Your task to perform on an android device: allow cookies in the chrome app Image 0: 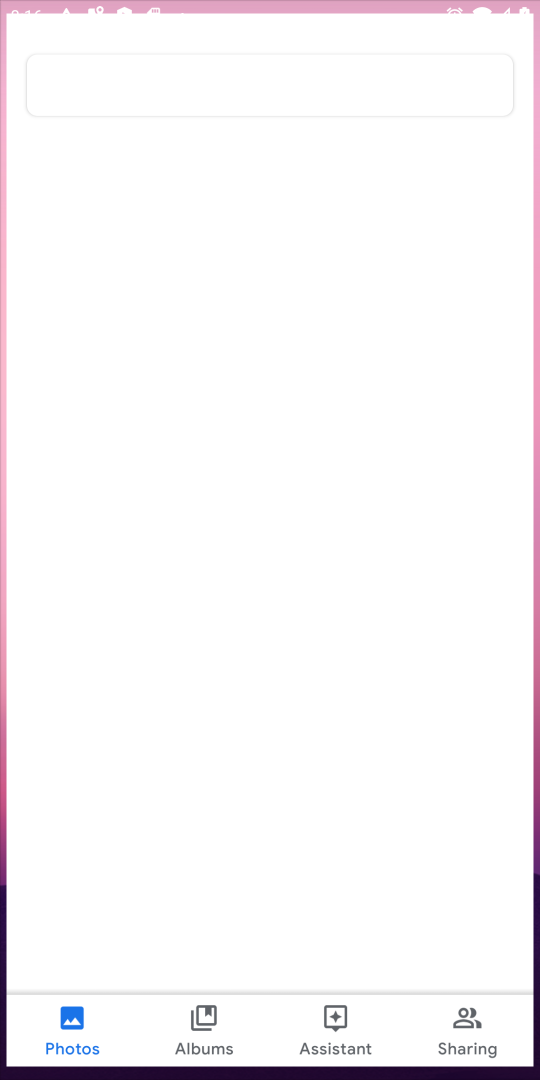
Step 0: press home button
Your task to perform on an android device: allow cookies in the chrome app Image 1: 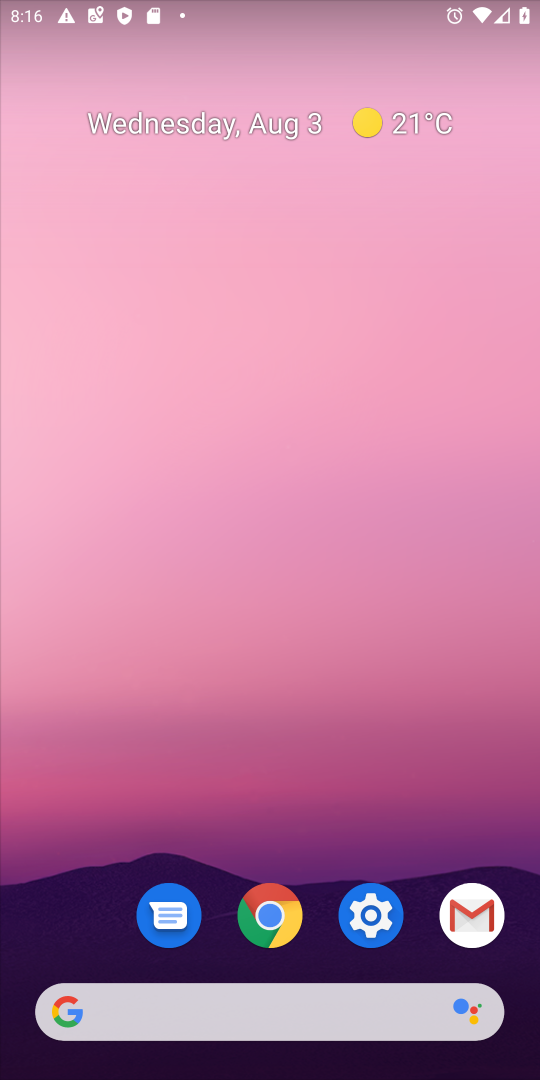
Step 1: drag from (385, 1019) to (273, 129)
Your task to perform on an android device: allow cookies in the chrome app Image 2: 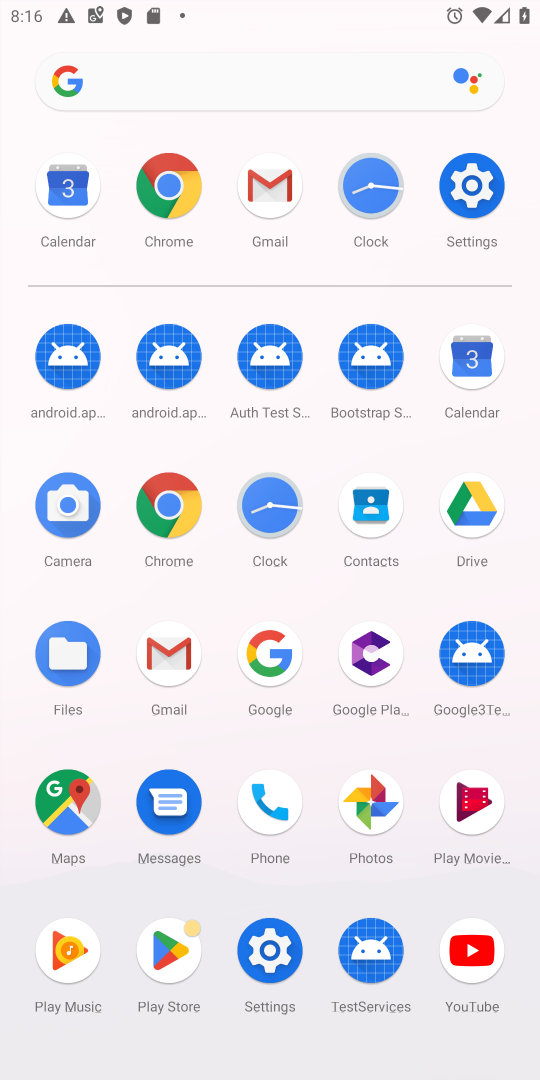
Step 2: click (170, 189)
Your task to perform on an android device: allow cookies in the chrome app Image 3: 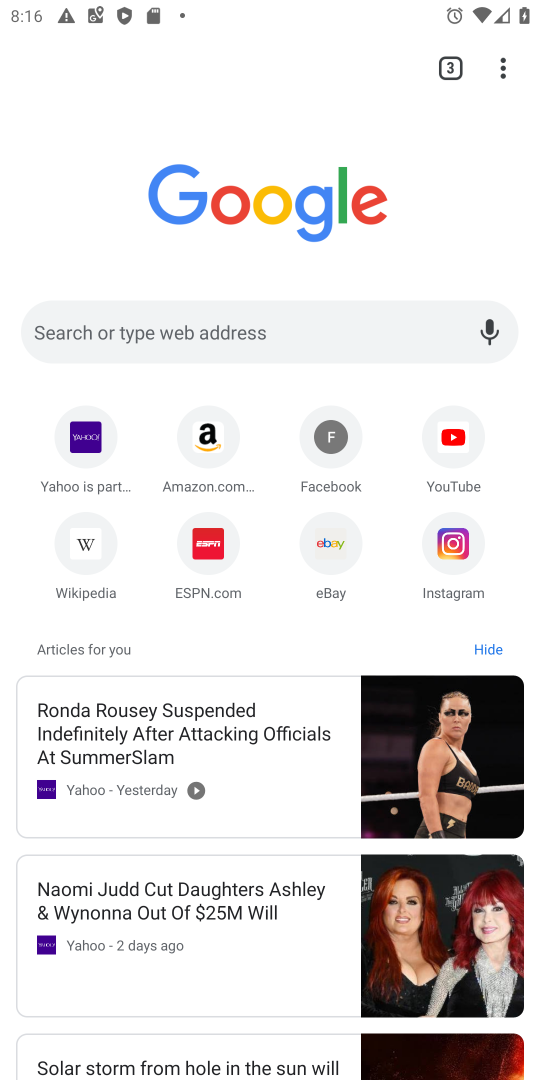
Step 3: click (507, 81)
Your task to perform on an android device: allow cookies in the chrome app Image 4: 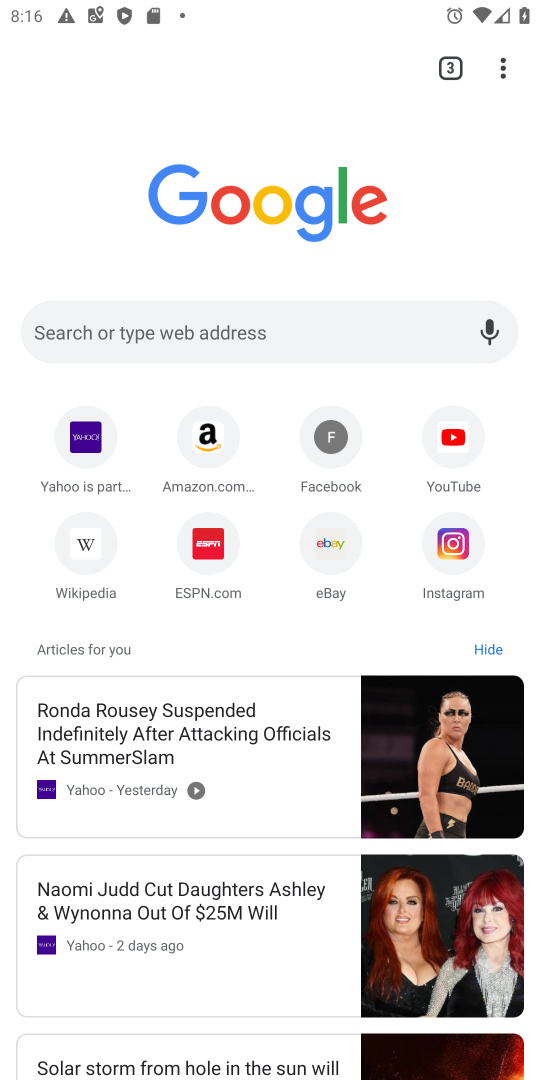
Step 4: click (506, 76)
Your task to perform on an android device: allow cookies in the chrome app Image 5: 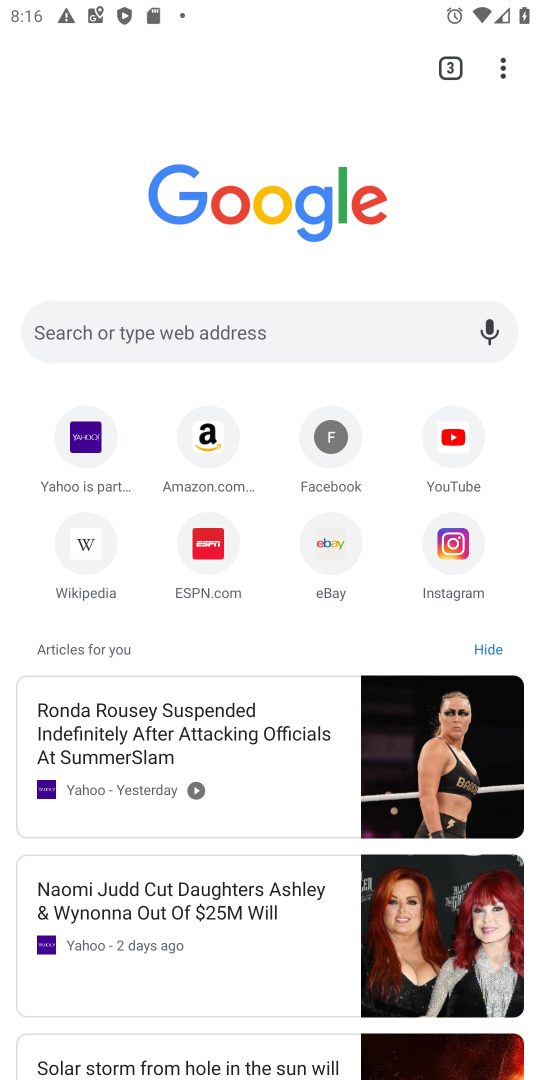
Step 5: click (509, 84)
Your task to perform on an android device: allow cookies in the chrome app Image 6: 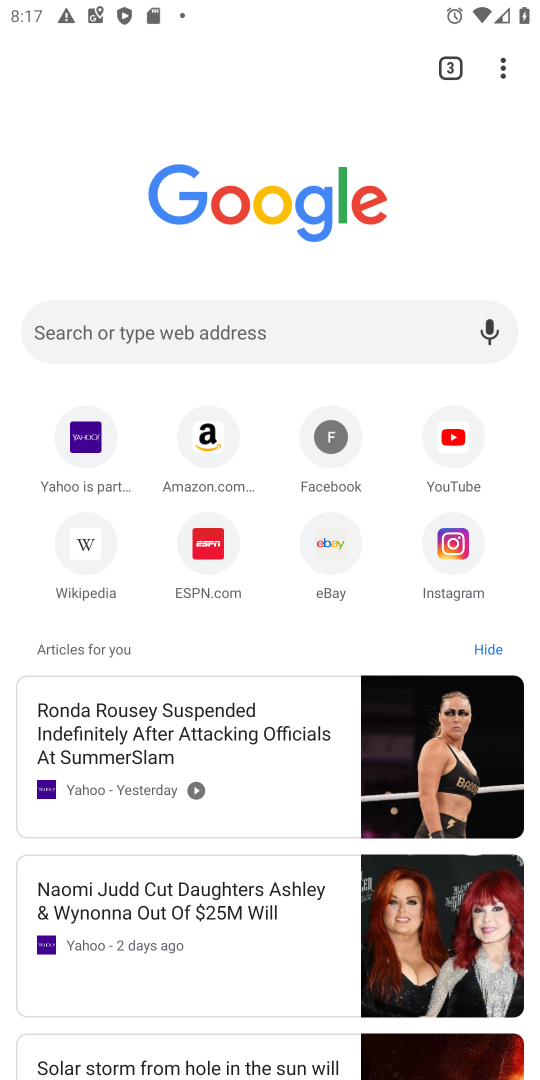
Step 6: click (509, 69)
Your task to perform on an android device: allow cookies in the chrome app Image 7: 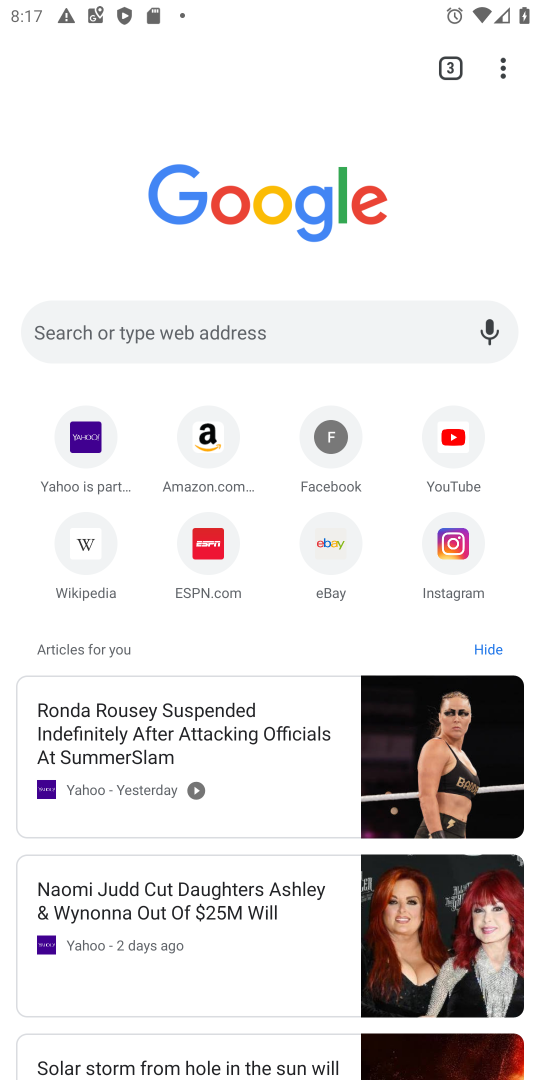
Step 7: click (498, 83)
Your task to perform on an android device: allow cookies in the chrome app Image 8: 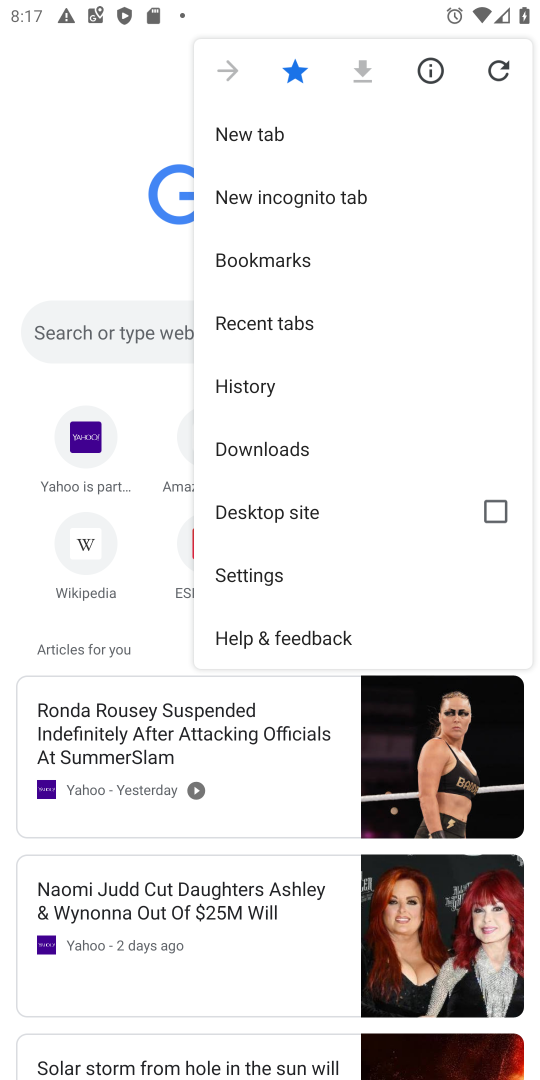
Step 8: click (259, 569)
Your task to perform on an android device: allow cookies in the chrome app Image 9: 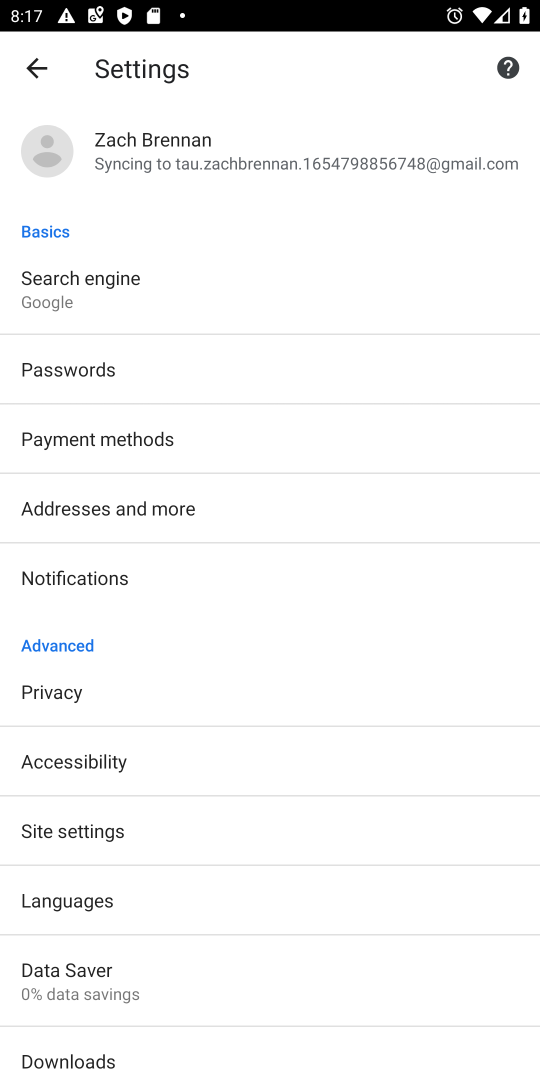
Step 9: click (119, 833)
Your task to perform on an android device: allow cookies in the chrome app Image 10: 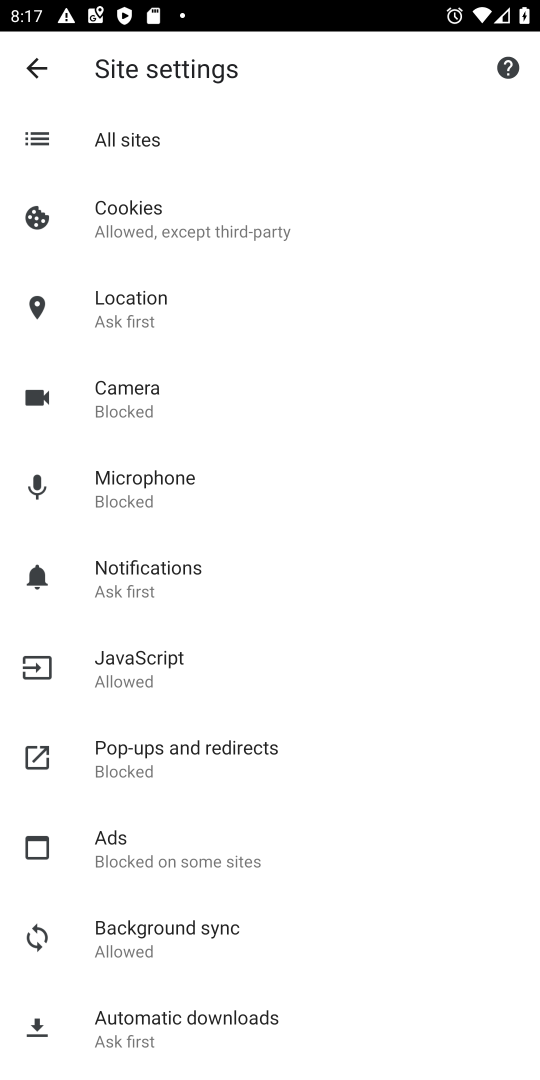
Step 10: click (190, 225)
Your task to perform on an android device: allow cookies in the chrome app Image 11: 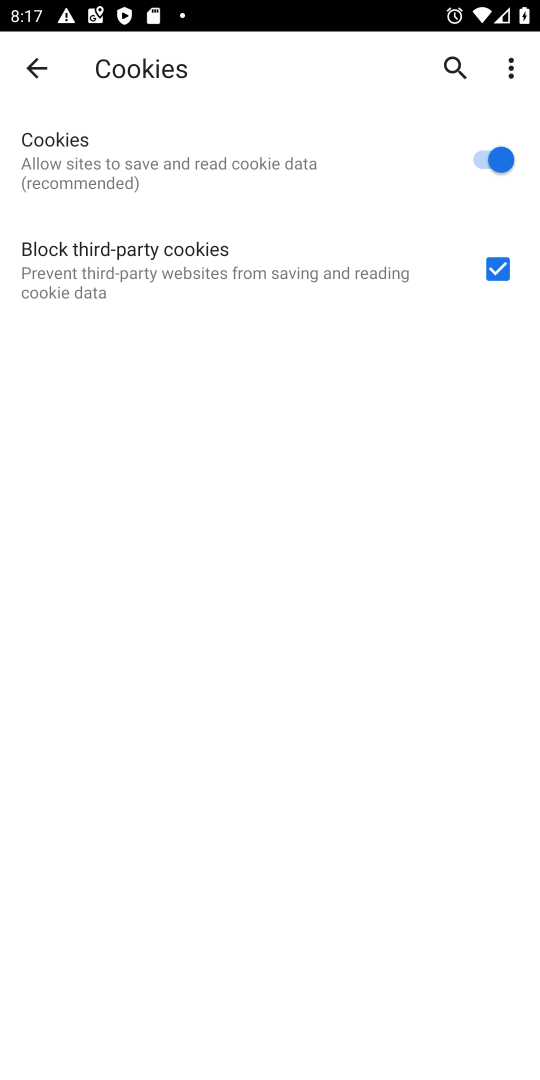
Step 11: task complete